Your task to perform on an android device: change the clock display to analog Image 0: 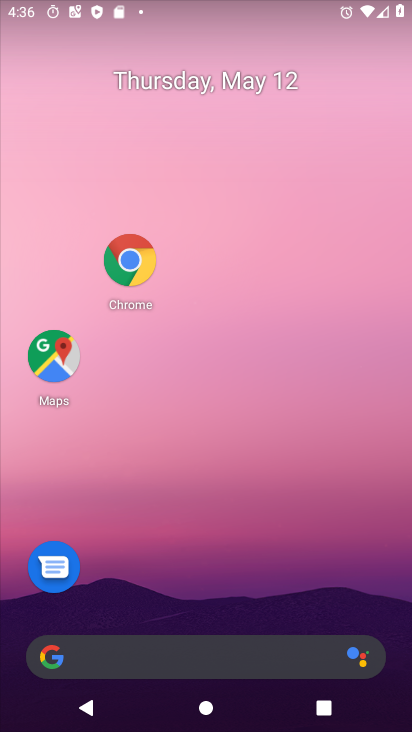
Step 0: drag from (181, 631) to (202, 235)
Your task to perform on an android device: change the clock display to analog Image 1: 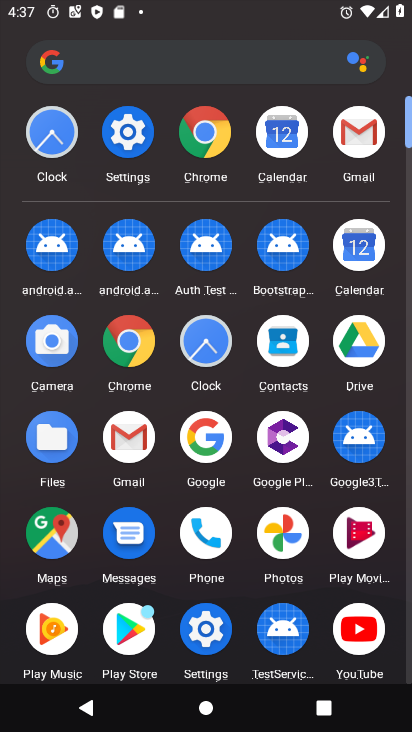
Step 1: click (56, 140)
Your task to perform on an android device: change the clock display to analog Image 2: 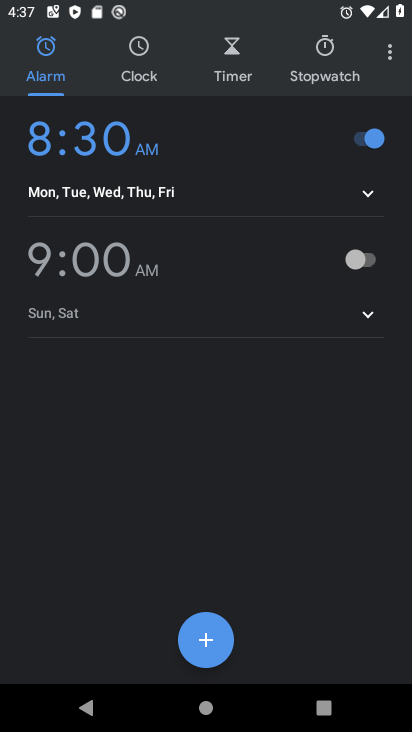
Step 2: click (386, 61)
Your task to perform on an android device: change the clock display to analog Image 3: 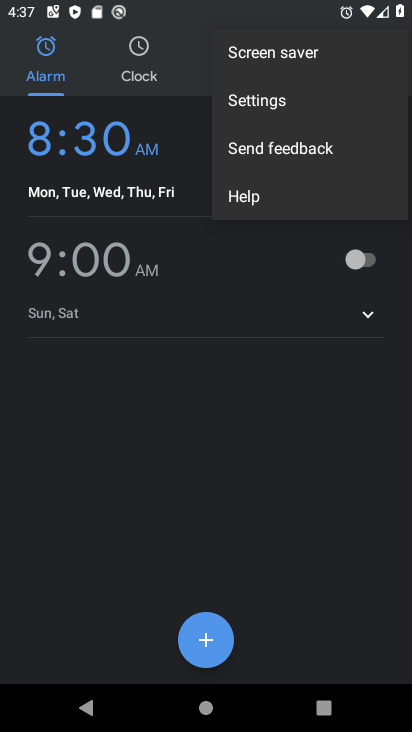
Step 3: click (252, 106)
Your task to perform on an android device: change the clock display to analog Image 4: 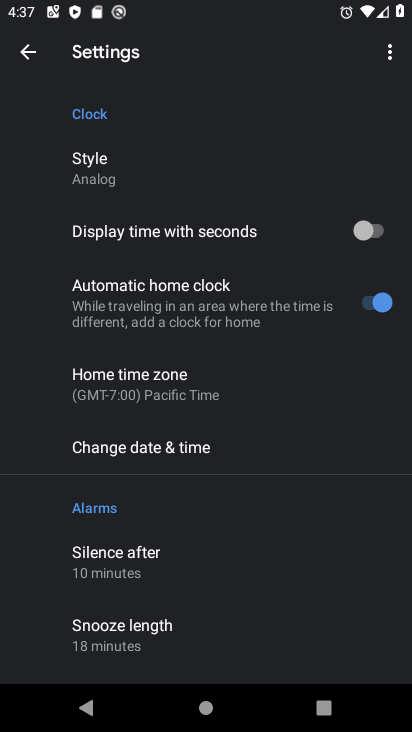
Step 4: click (103, 173)
Your task to perform on an android device: change the clock display to analog Image 5: 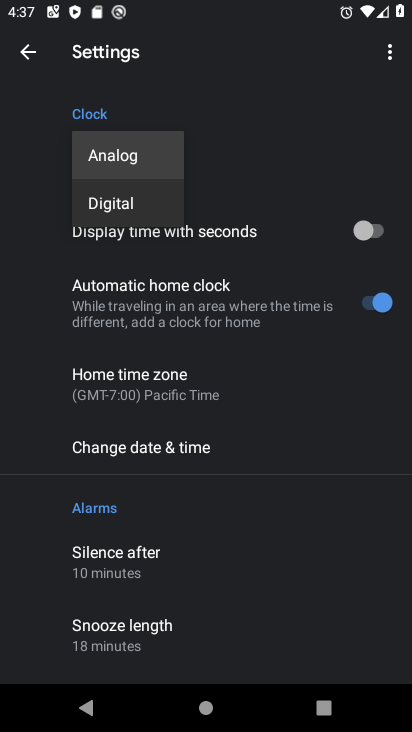
Step 5: click (91, 156)
Your task to perform on an android device: change the clock display to analog Image 6: 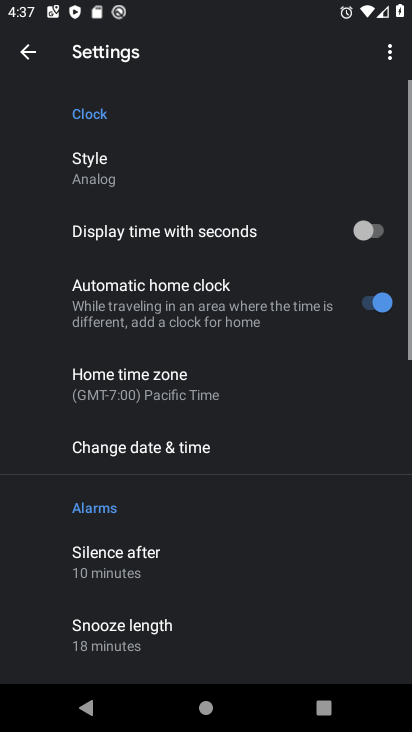
Step 6: task complete